Your task to perform on an android device: see sites visited before in the chrome app Image 0: 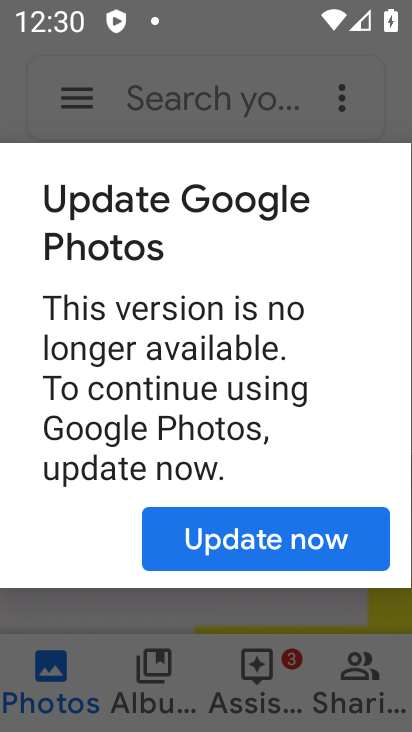
Step 0: press home button
Your task to perform on an android device: see sites visited before in the chrome app Image 1: 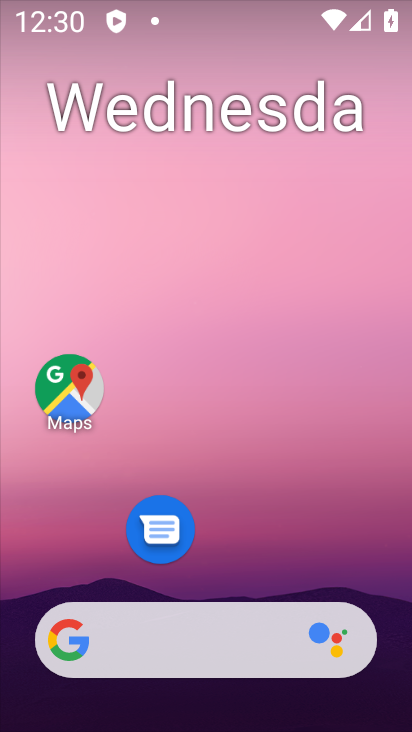
Step 1: drag from (193, 590) to (179, 81)
Your task to perform on an android device: see sites visited before in the chrome app Image 2: 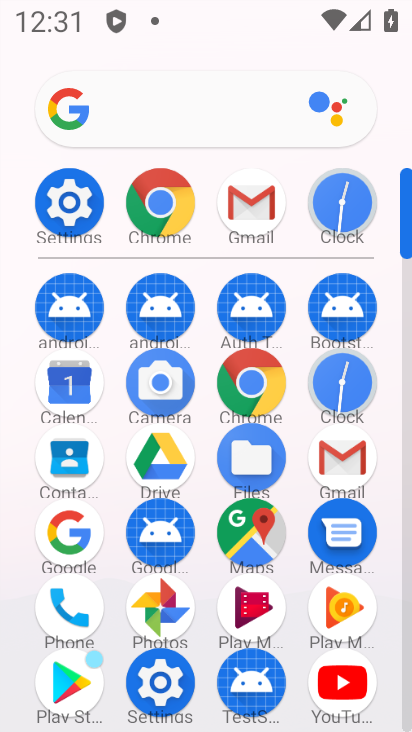
Step 2: click (254, 382)
Your task to perform on an android device: see sites visited before in the chrome app Image 3: 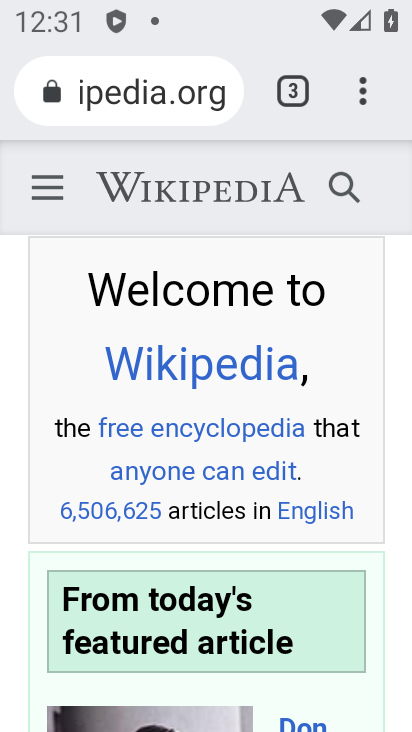
Step 3: click (361, 98)
Your task to perform on an android device: see sites visited before in the chrome app Image 4: 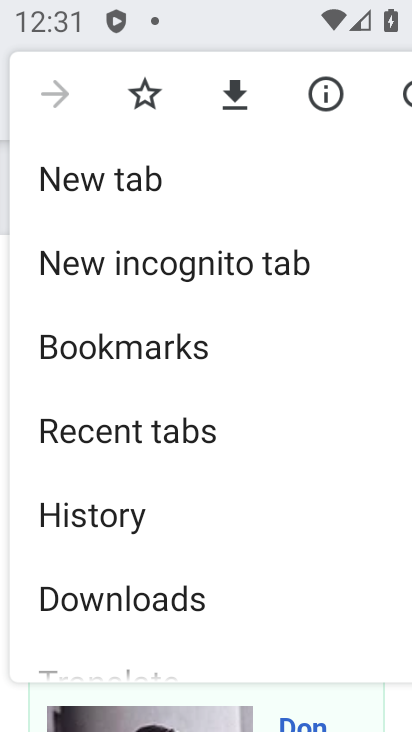
Step 4: click (119, 516)
Your task to perform on an android device: see sites visited before in the chrome app Image 5: 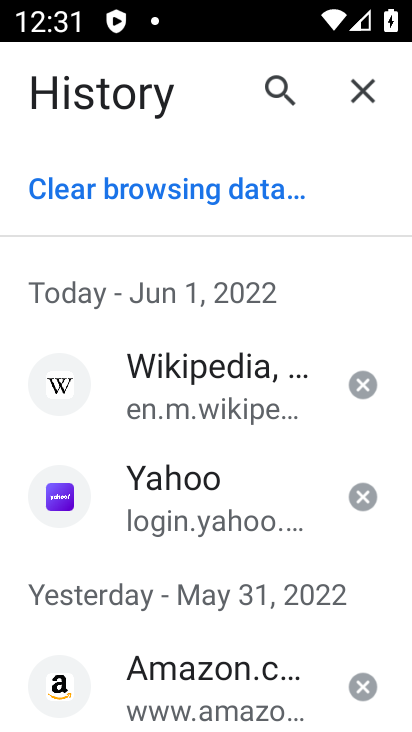
Step 5: task complete